Your task to perform on an android device: Open sound settings Image 0: 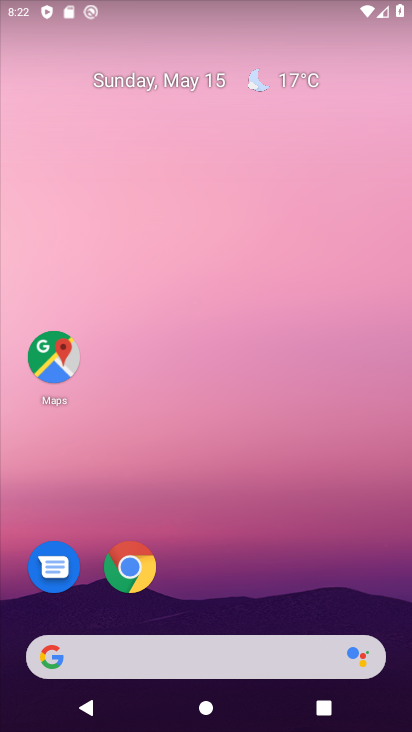
Step 0: drag from (251, 641) to (90, 11)
Your task to perform on an android device: Open sound settings Image 1: 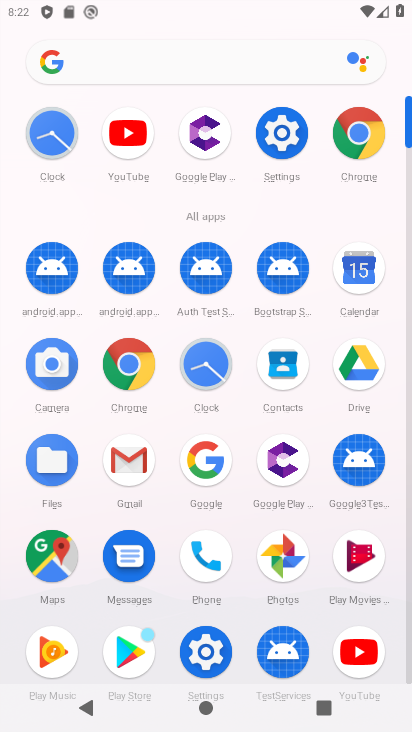
Step 1: click (215, 647)
Your task to perform on an android device: Open sound settings Image 2: 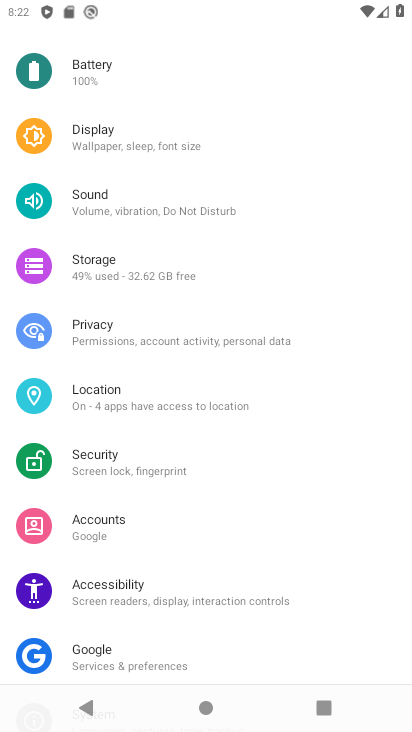
Step 2: click (44, 209)
Your task to perform on an android device: Open sound settings Image 3: 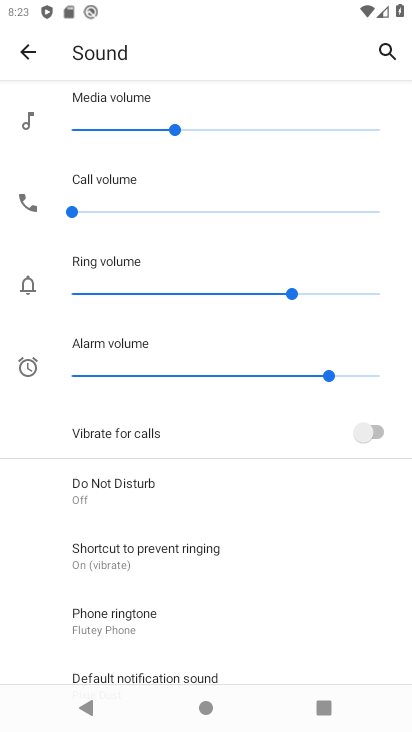
Step 3: task complete